Your task to perform on an android device: open device folders in google photos Image 0: 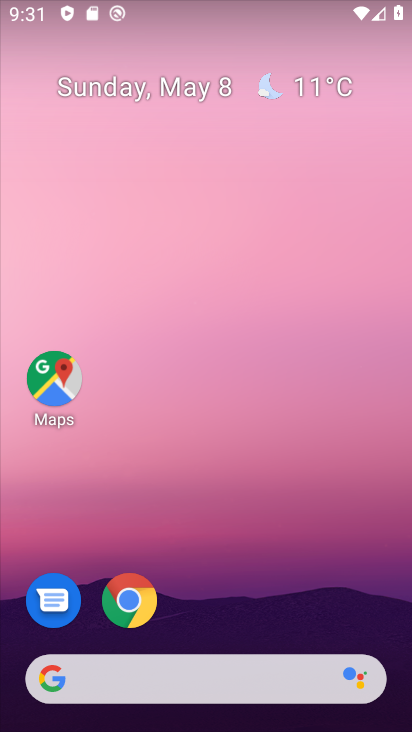
Step 0: drag from (341, 567) to (250, 22)
Your task to perform on an android device: open device folders in google photos Image 1: 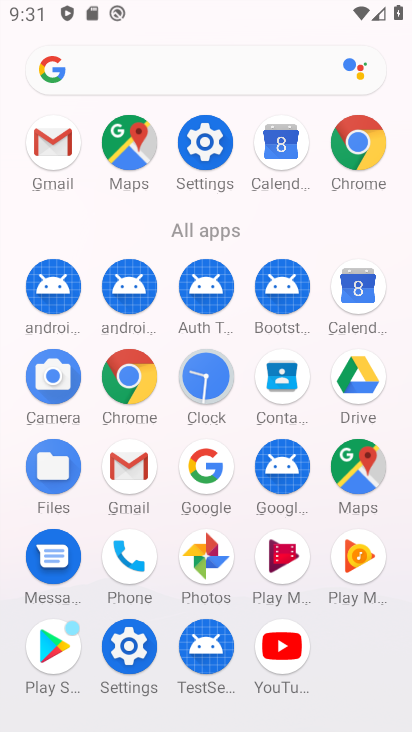
Step 1: drag from (4, 414) to (8, 209)
Your task to perform on an android device: open device folders in google photos Image 2: 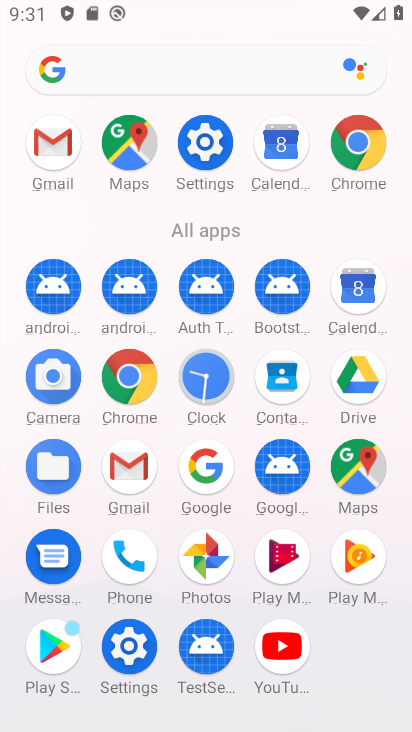
Step 2: click (202, 557)
Your task to perform on an android device: open device folders in google photos Image 3: 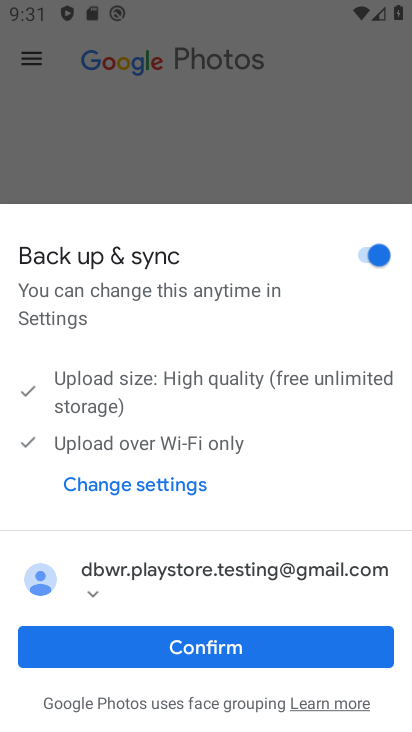
Step 3: click (211, 637)
Your task to perform on an android device: open device folders in google photos Image 4: 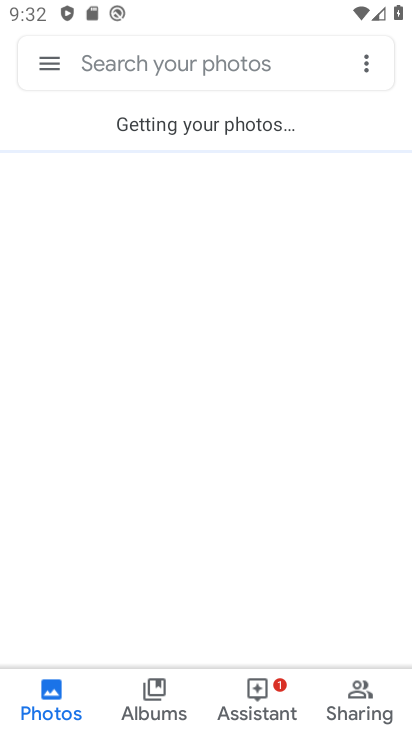
Step 4: click (37, 70)
Your task to perform on an android device: open device folders in google photos Image 5: 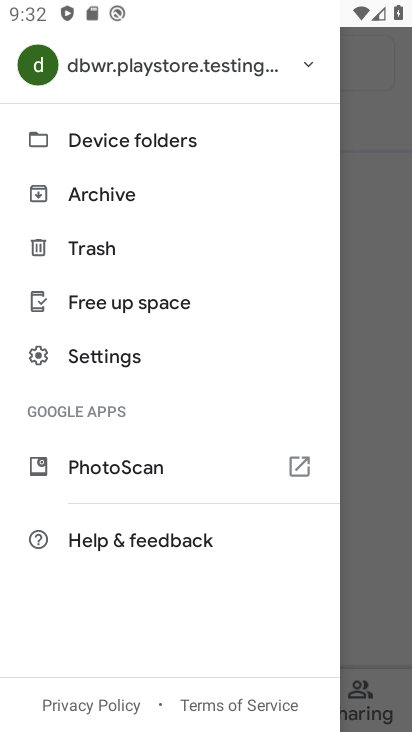
Step 5: click (124, 132)
Your task to perform on an android device: open device folders in google photos Image 6: 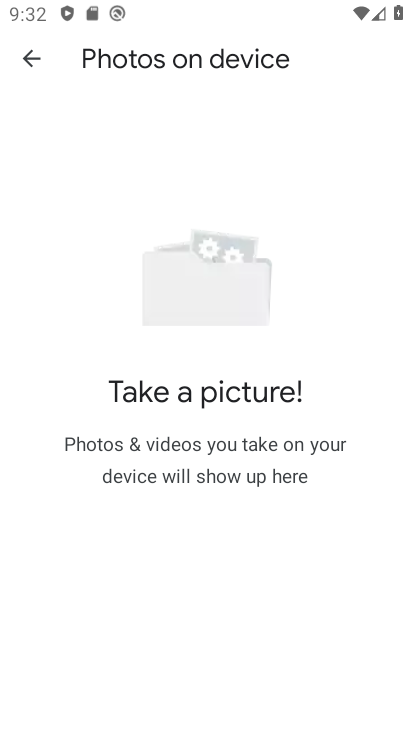
Step 6: task complete